Your task to perform on an android device: Search for the best rated coffee table on Target. Image 0: 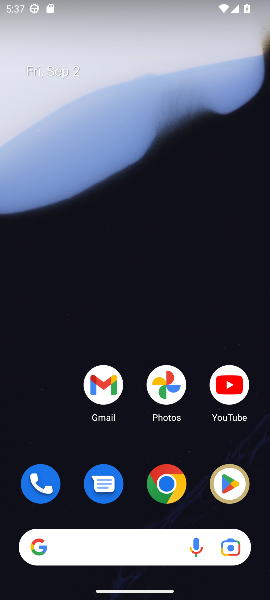
Step 0: click (170, 487)
Your task to perform on an android device: Search for the best rated coffee table on Target. Image 1: 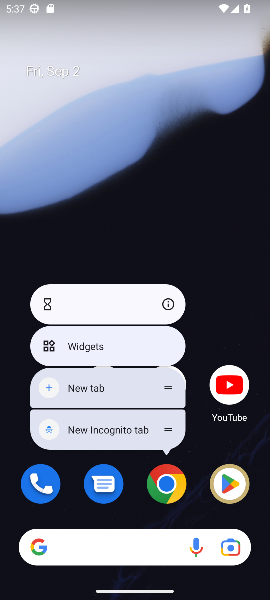
Step 1: click (170, 487)
Your task to perform on an android device: Search for the best rated coffee table on Target. Image 2: 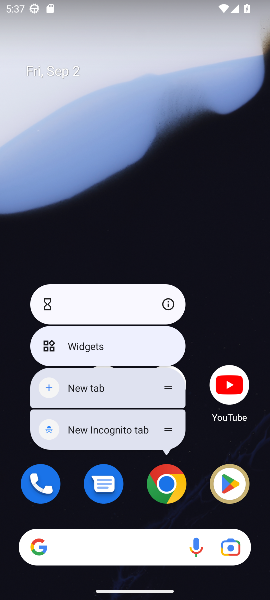
Step 2: click (170, 487)
Your task to perform on an android device: Search for the best rated coffee table on Target. Image 3: 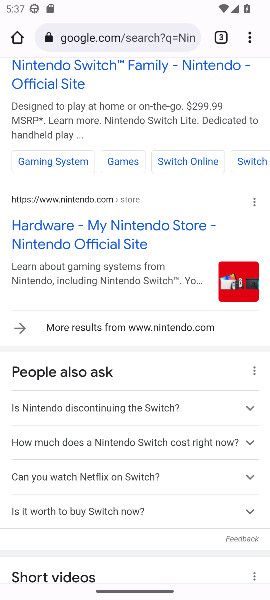
Step 3: click (156, 36)
Your task to perform on an android device: Search for the best rated coffee table on Target. Image 4: 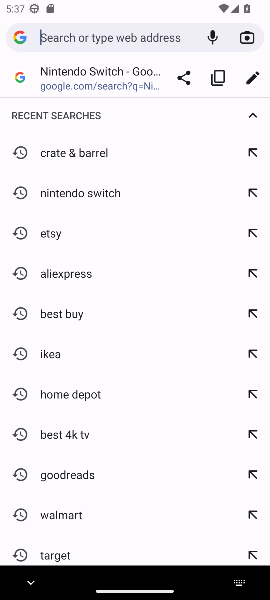
Step 4: type "Target"
Your task to perform on an android device: Search for the best rated coffee table on Target. Image 5: 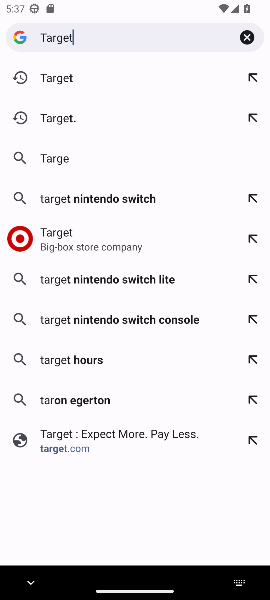
Step 5: press enter
Your task to perform on an android device: Search for the best rated coffee table on Target. Image 6: 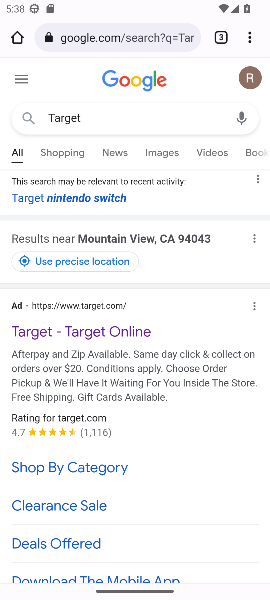
Step 6: click (81, 330)
Your task to perform on an android device: Search for the best rated coffee table on Target. Image 7: 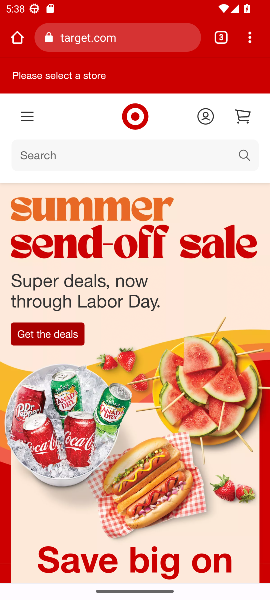
Step 7: click (245, 153)
Your task to perform on an android device: Search for the best rated coffee table on Target. Image 8: 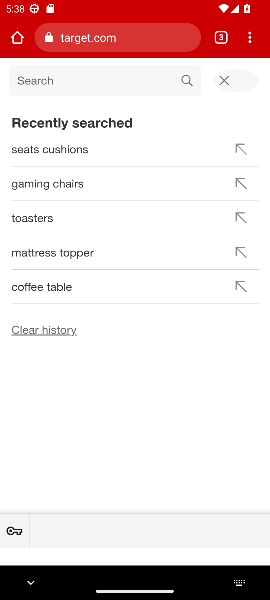
Step 8: type " coffee table"
Your task to perform on an android device: Search for the best rated coffee table on Target. Image 9: 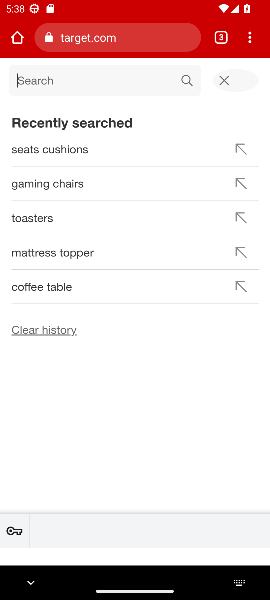
Step 9: press enter
Your task to perform on an android device: Search for the best rated coffee table on Target. Image 10: 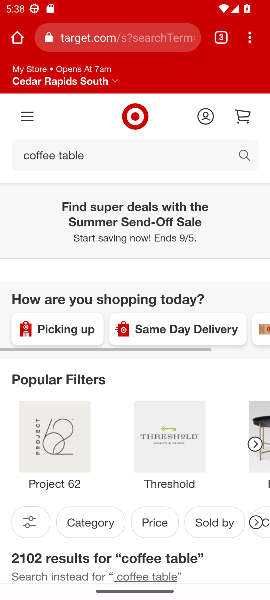
Step 10: task complete